Your task to perform on an android device: Go to calendar. Show me events next week Image 0: 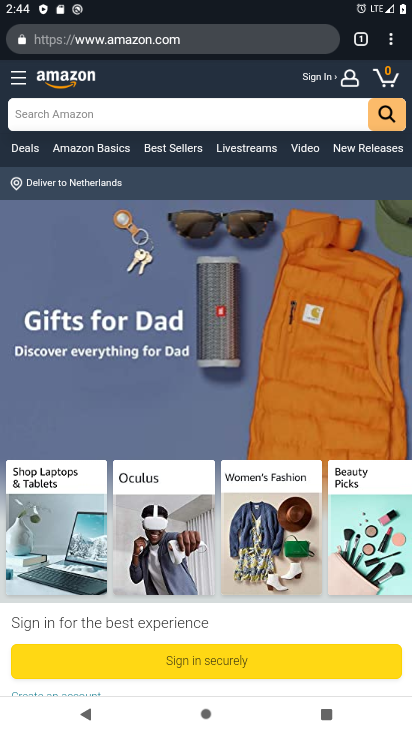
Step 0: press home button
Your task to perform on an android device: Go to calendar. Show me events next week Image 1: 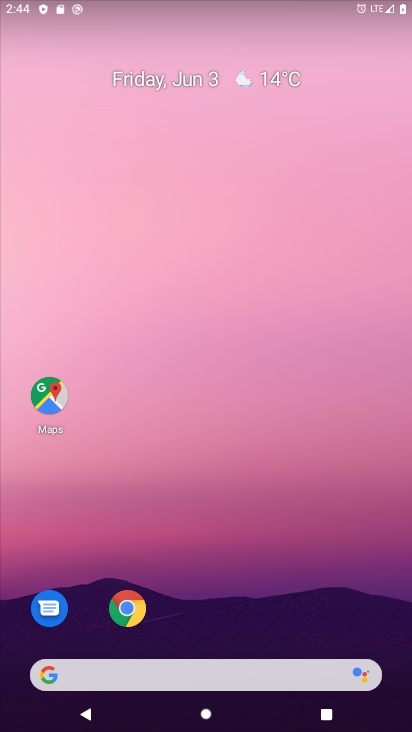
Step 1: drag from (212, 670) to (155, 140)
Your task to perform on an android device: Go to calendar. Show me events next week Image 2: 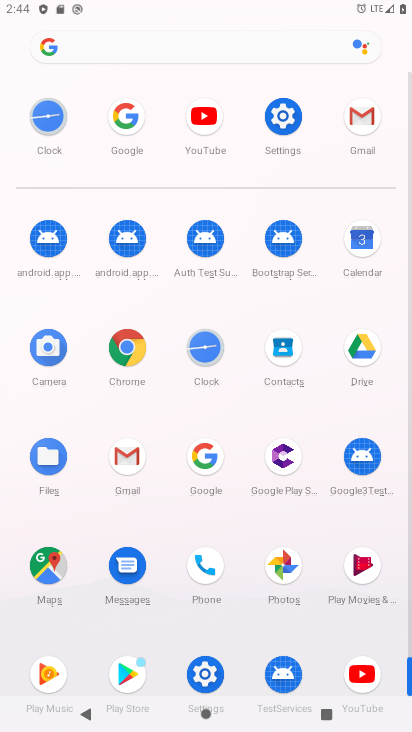
Step 2: click (364, 246)
Your task to perform on an android device: Go to calendar. Show me events next week Image 3: 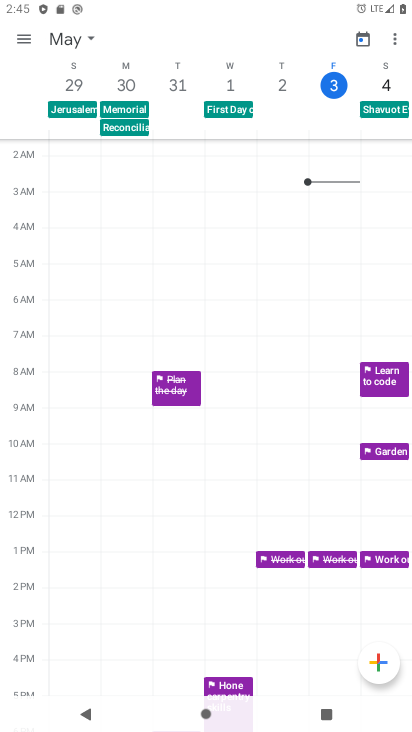
Step 3: task complete